Your task to perform on an android device: Go to Reddit.com Image 0: 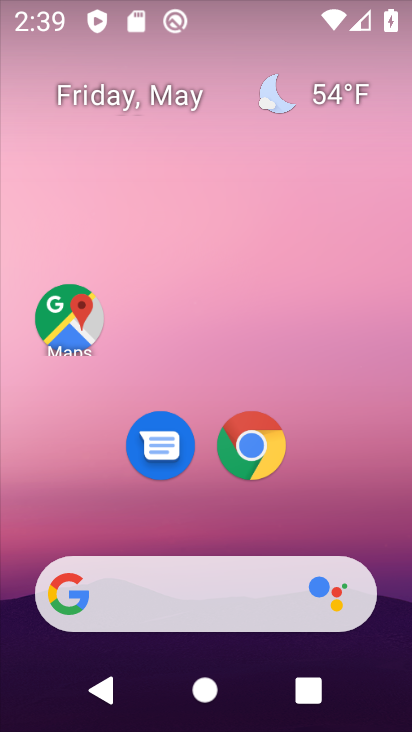
Step 0: drag from (329, 490) to (264, 123)
Your task to perform on an android device: Go to Reddit.com Image 1: 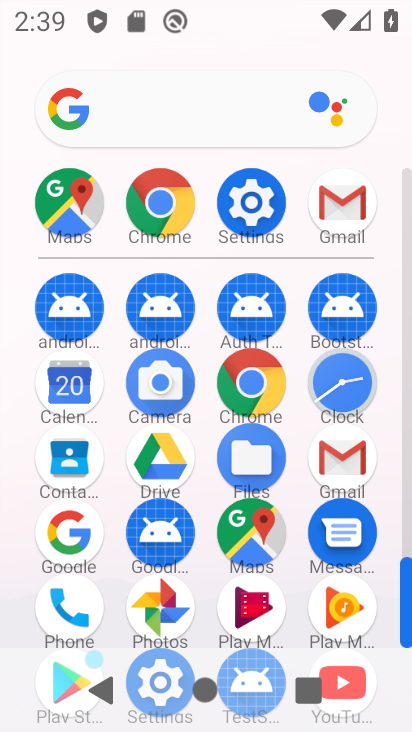
Step 1: click (164, 200)
Your task to perform on an android device: Go to Reddit.com Image 2: 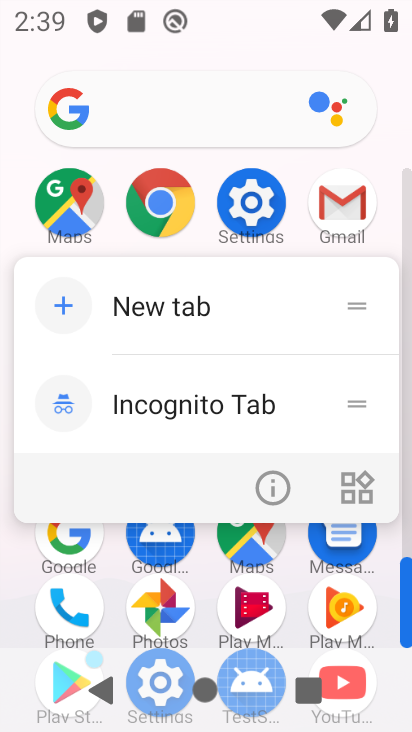
Step 2: click (168, 230)
Your task to perform on an android device: Go to Reddit.com Image 3: 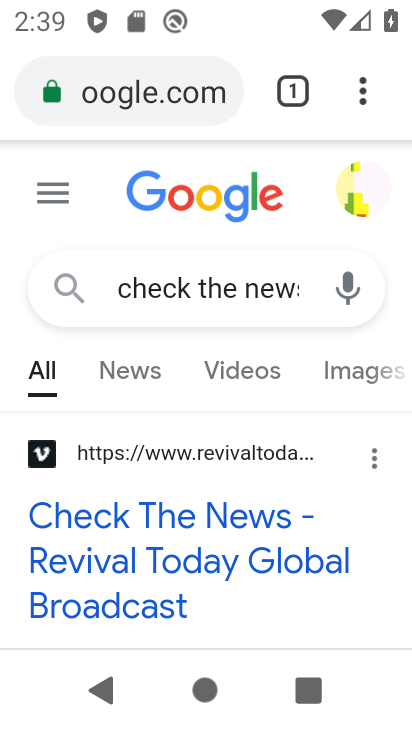
Step 3: click (191, 92)
Your task to perform on an android device: Go to Reddit.com Image 4: 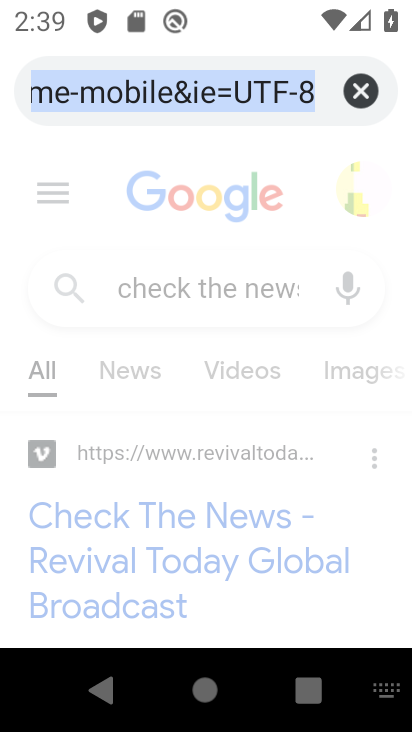
Step 4: click (362, 100)
Your task to perform on an android device: Go to Reddit.com Image 5: 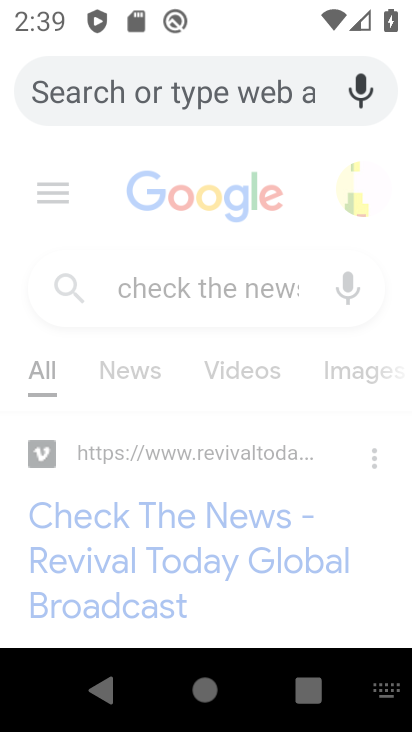
Step 5: click (222, 101)
Your task to perform on an android device: Go to Reddit.com Image 6: 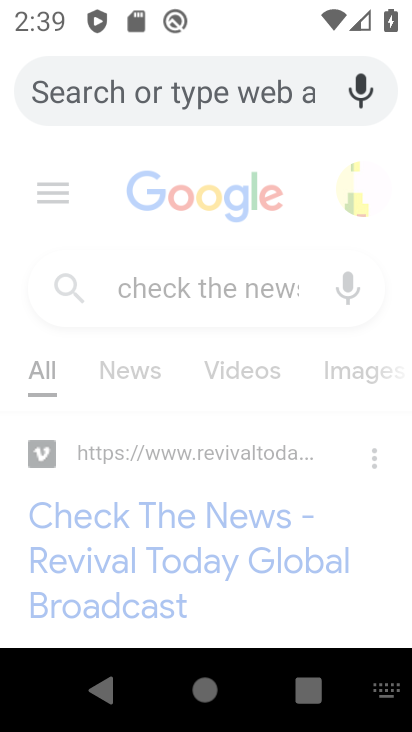
Step 6: type "reddit.com"
Your task to perform on an android device: Go to Reddit.com Image 7: 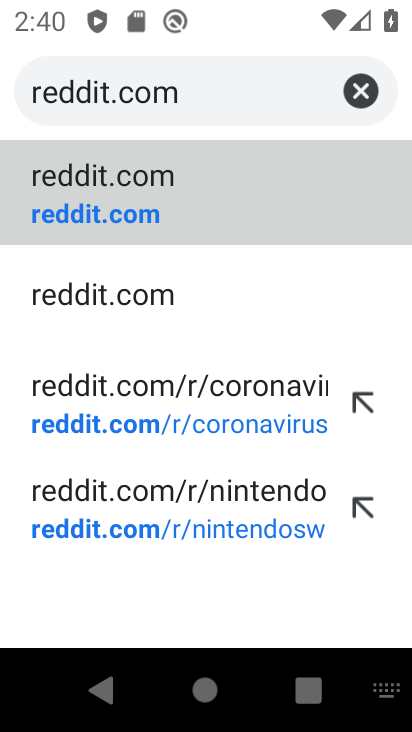
Step 7: click (136, 199)
Your task to perform on an android device: Go to Reddit.com Image 8: 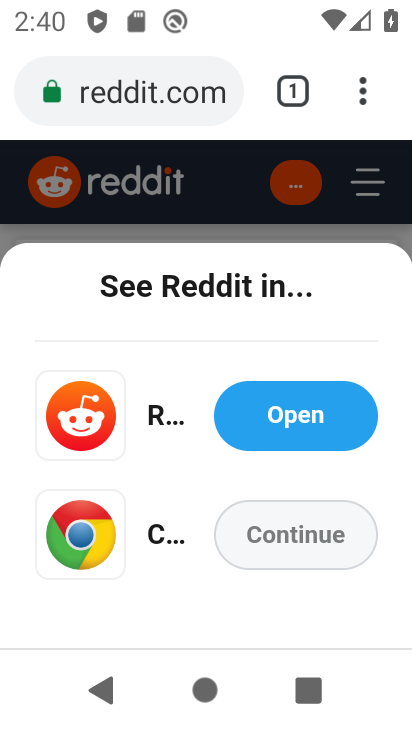
Step 8: task complete